Your task to perform on an android device: all mails in gmail Image 0: 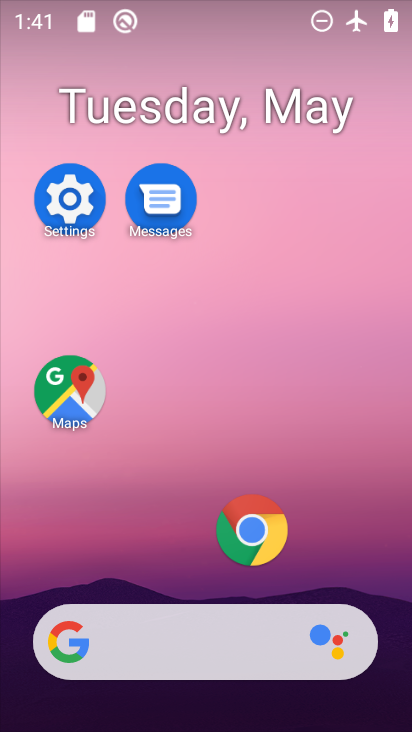
Step 0: click (404, 451)
Your task to perform on an android device: all mails in gmail Image 1: 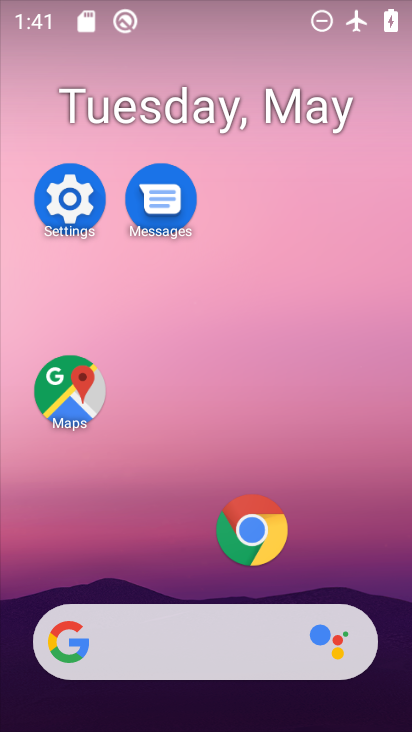
Step 1: drag from (62, 497) to (247, 182)
Your task to perform on an android device: all mails in gmail Image 2: 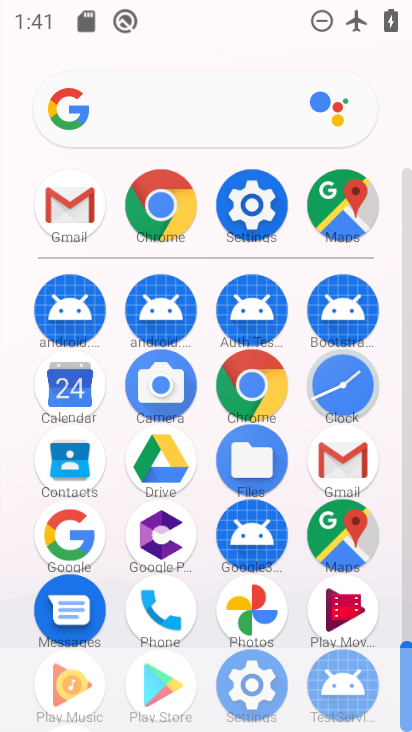
Step 2: drag from (115, 298) to (133, 412)
Your task to perform on an android device: all mails in gmail Image 3: 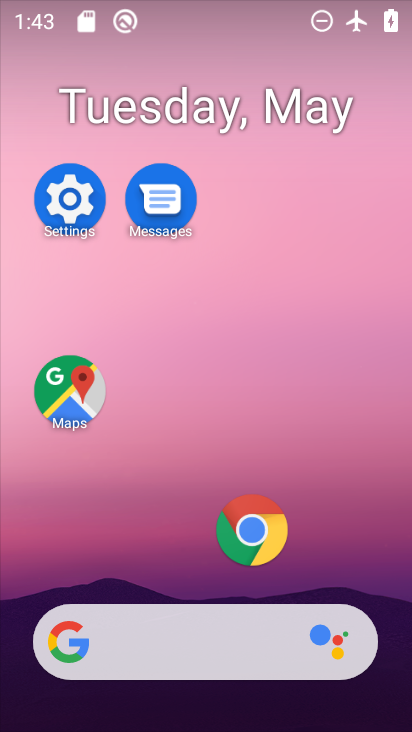
Step 3: click (329, 458)
Your task to perform on an android device: all mails in gmail Image 4: 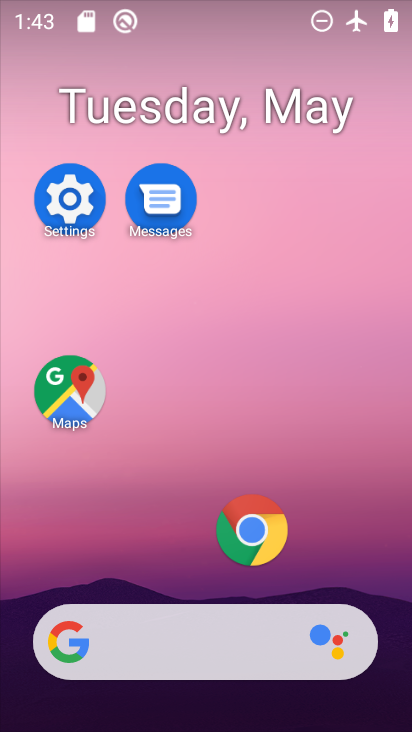
Step 4: drag from (195, 524) to (193, 22)
Your task to perform on an android device: all mails in gmail Image 5: 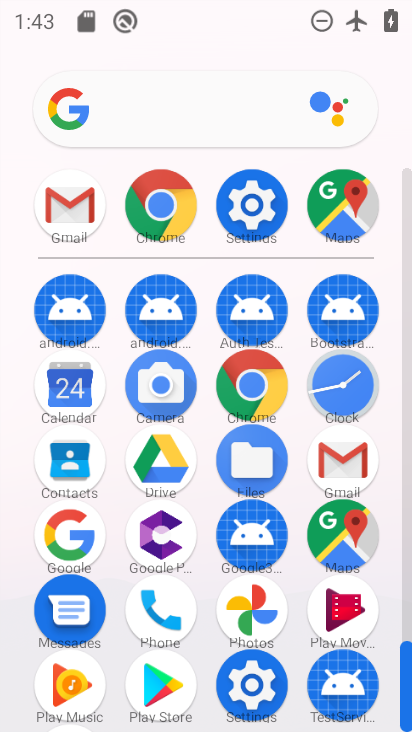
Step 5: click (355, 475)
Your task to perform on an android device: all mails in gmail Image 6: 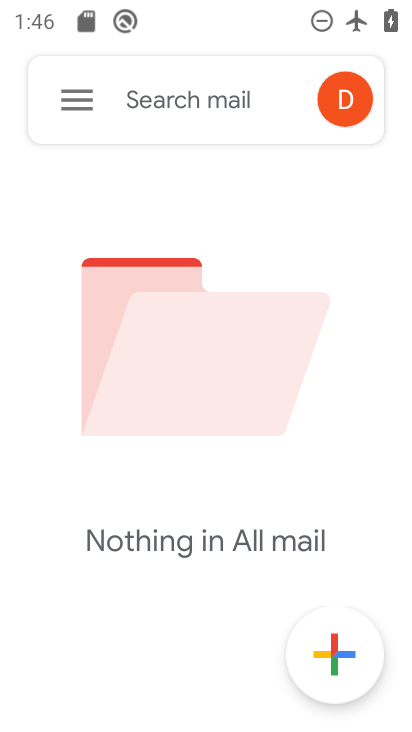
Step 6: click (61, 101)
Your task to perform on an android device: all mails in gmail Image 7: 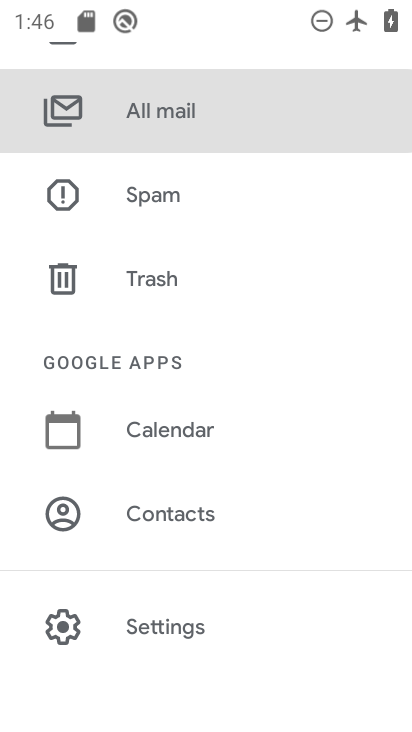
Step 7: task complete